Your task to perform on an android device: Open settings Image 0: 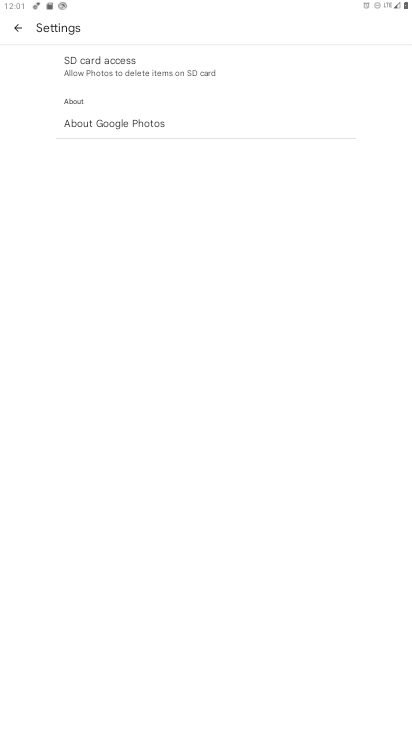
Step 0: press home button
Your task to perform on an android device: Open settings Image 1: 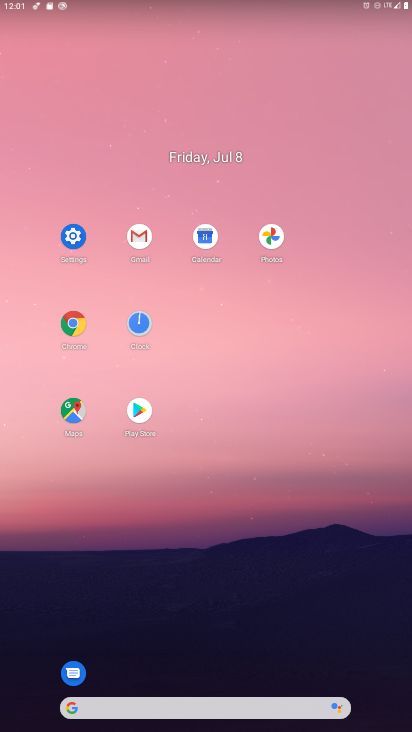
Step 1: click (74, 230)
Your task to perform on an android device: Open settings Image 2: 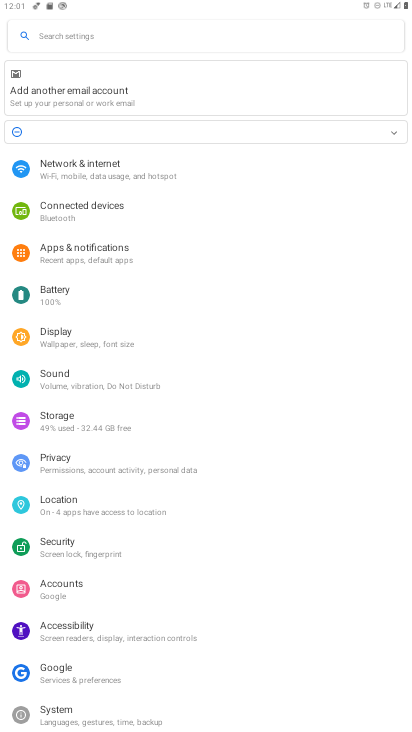
Step 2: task complete